Your task to perform on an android device: turn on improve location accuracy Image 0: 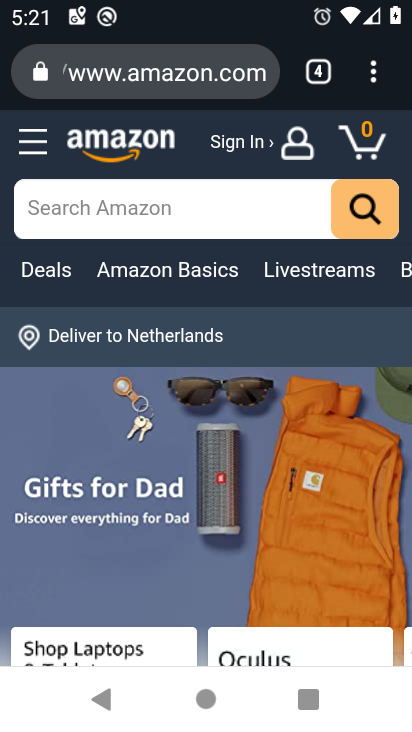
Step 0: press home button
Your task to perform on an android device: turn on improve location accuracy Image 1: 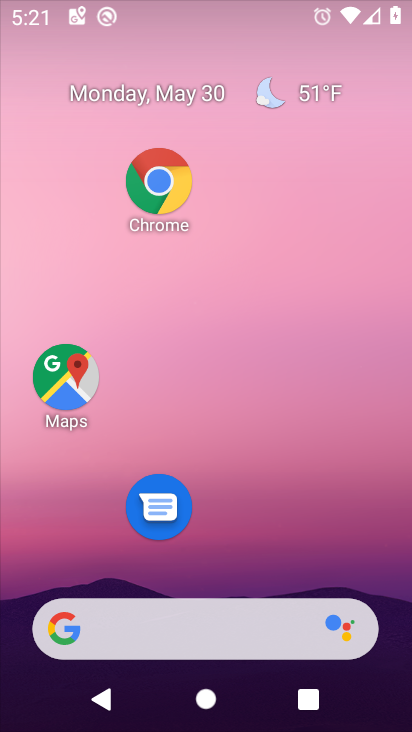
Step 1: drag from (326, 567) to (280, 117)
Your task to perform on an android device: turn on improve location accuracy Image 2: 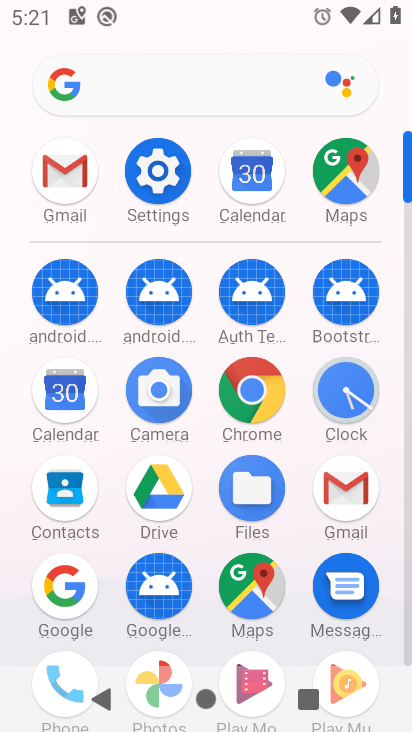
Step 2: click (167, 191)
Your task to perform on an android device: turn on improve location accuracy Image 3: 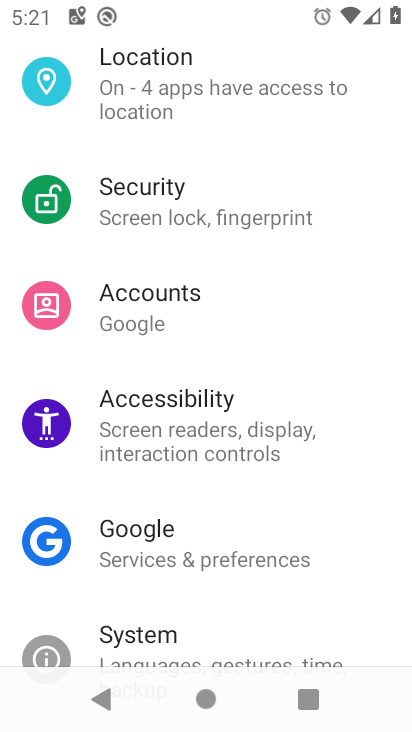
Step 3: drag from (249, 609) to (207, 704)
Your task to perform on an android device: turn on improve location accuracy Image 4: 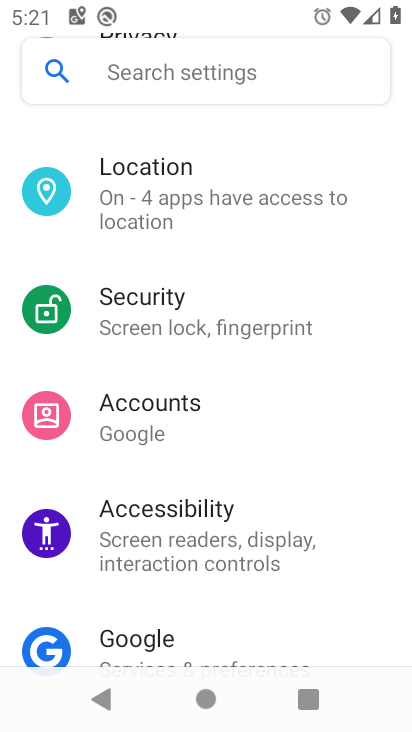
Step 4: click (190, 247)
Your task to perform on an android device: turn on improve location accuracy Image 5: 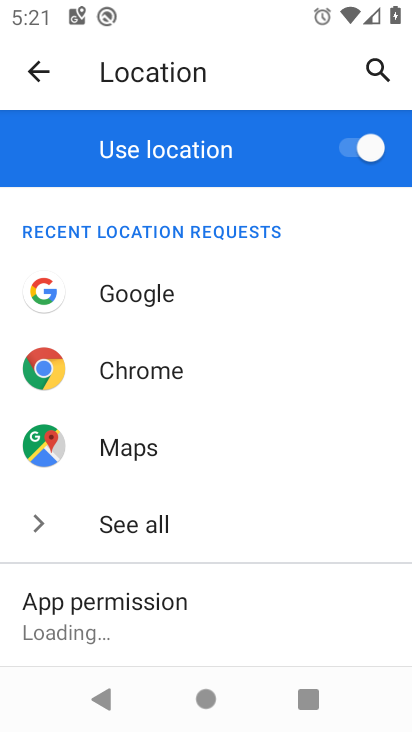
Step 5: drag from (203, 614) to (215, 355)
Your task to perform on an android device: turn on improve location accuracy Image 6: 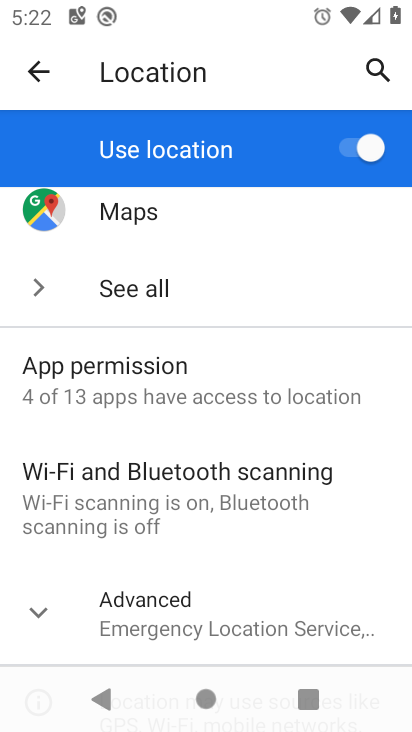
Step 6: click (193, 622)
Your task to perform on an android device: turn on improve location accuracy Image 7: 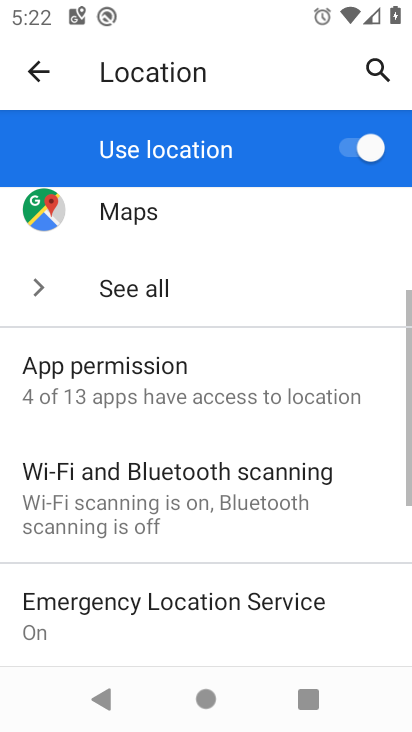
Step 7: drag from (195, 621) to (319, 343)
Your task to perform on an android device: turn on improve location accuracy Image 8: 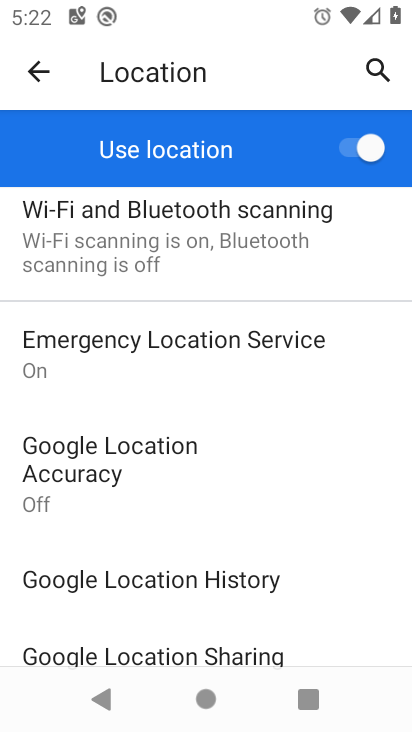
Step 8: click (135, 443)
Your task to perform on an android device: turn on improve location accuracy Image 9: 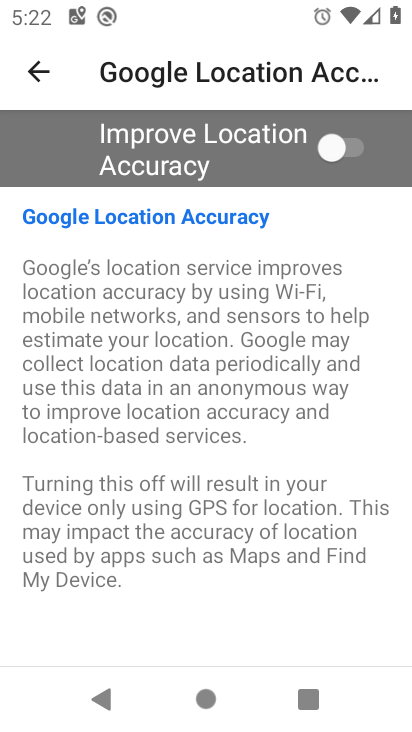
Step 9: click (288, 150)
Your task to perform on an android device: turn on improve location accuracy Image 10: 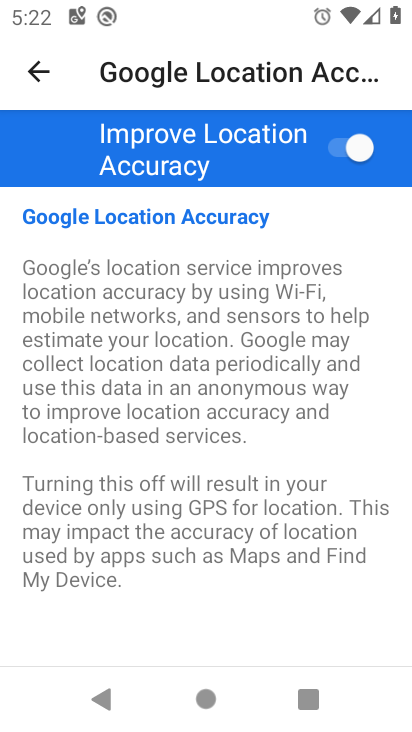
Step 10: task complete